Your task to perform on an android device: show emergency info Image 0: 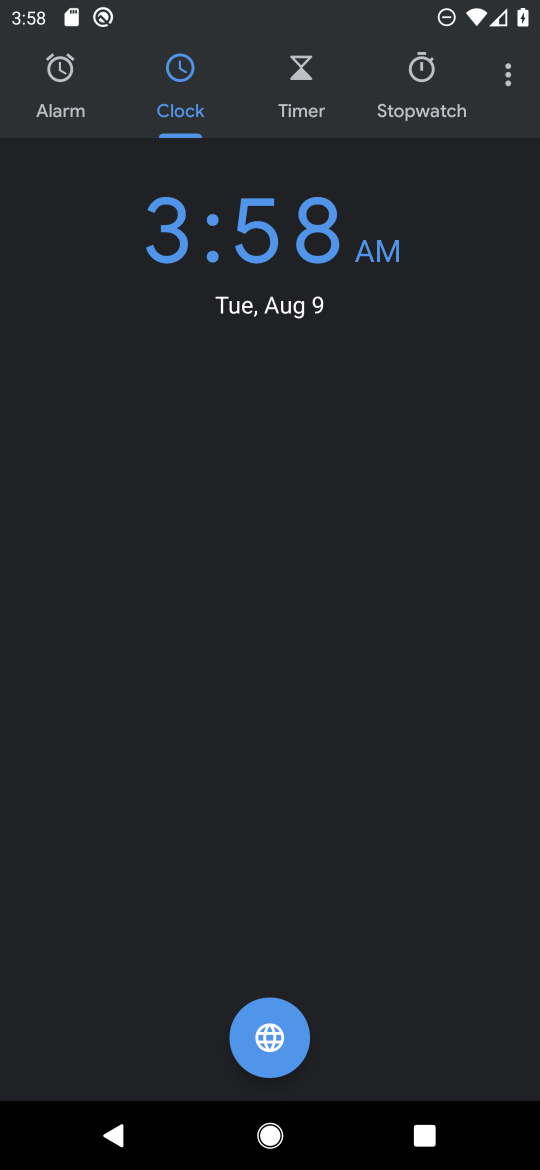
Step 0: press back button
Your task to perform on an android device: show emergency info Image 1: 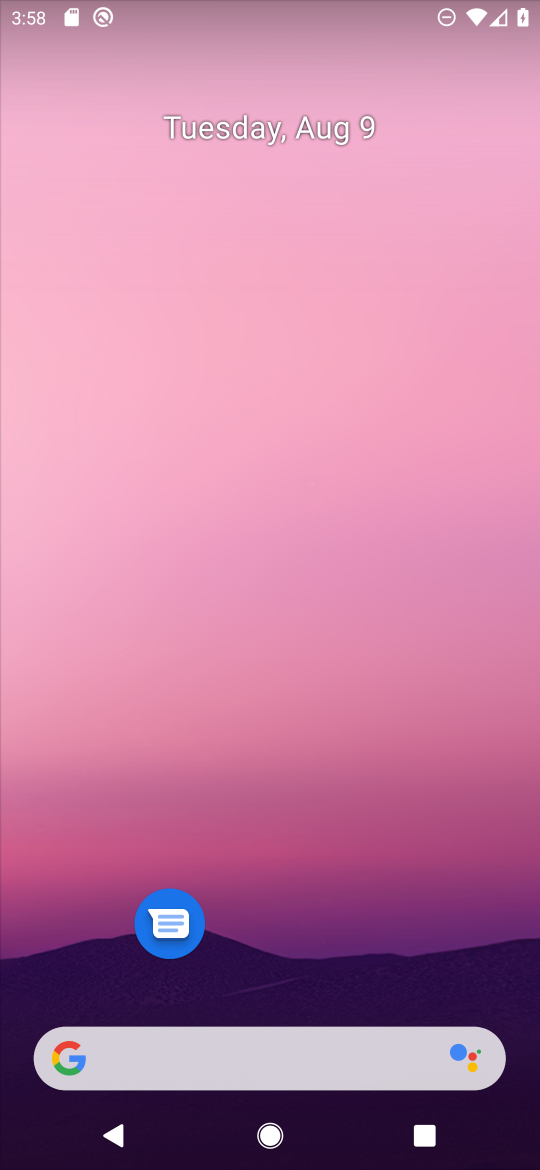
Step 1: drag from (307, 1005) to (448, 65)
Your task to perform on an android device: show emergency info Image 2: 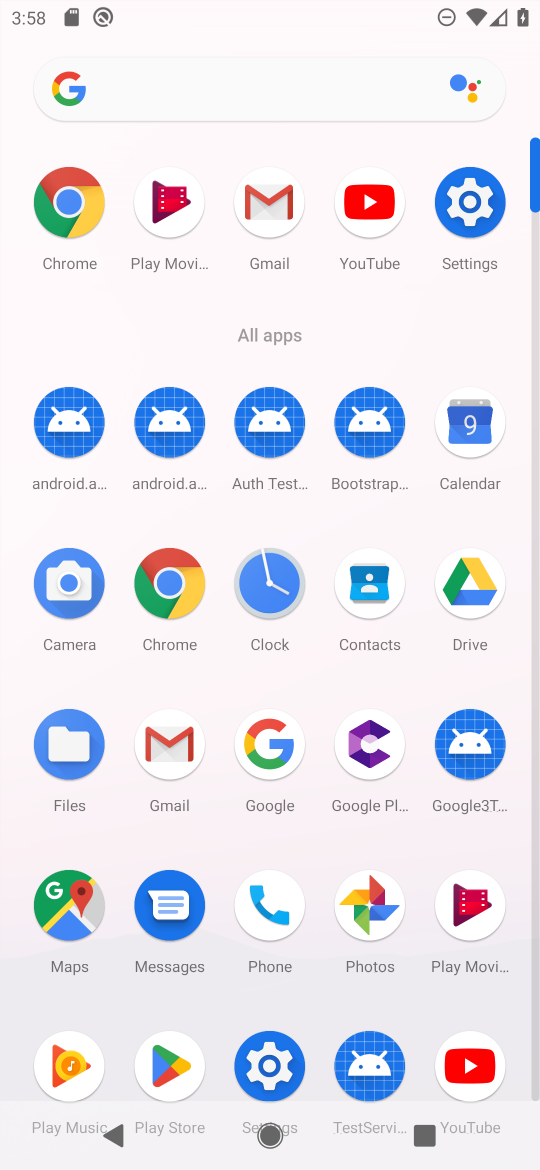
Step 2: click (471, 196)
Your task to perform on an android device: show emergency info Image 3: 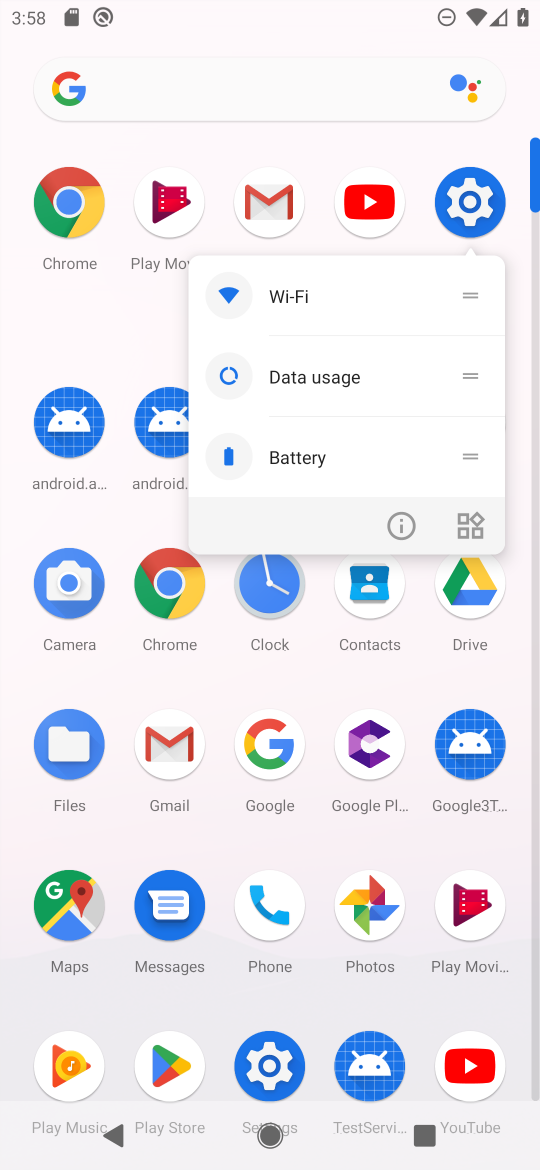
Step 3: click (473, 205)
Your task to perform on an android device: show emergency info Image 4: 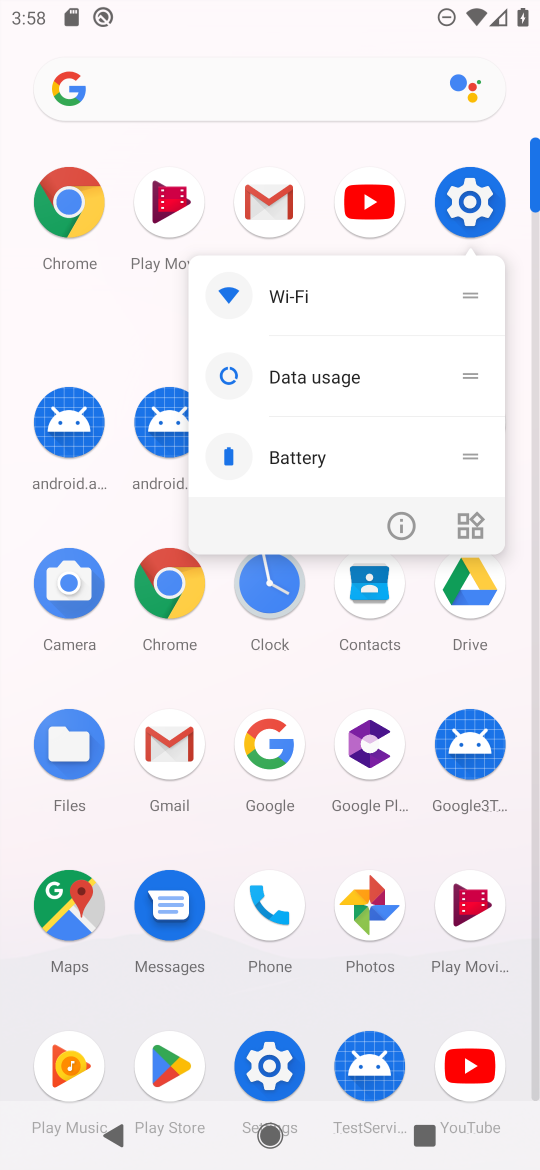
Step 4: click (473, 205)
Your task to perform on an android device: show emergency info Image 5: 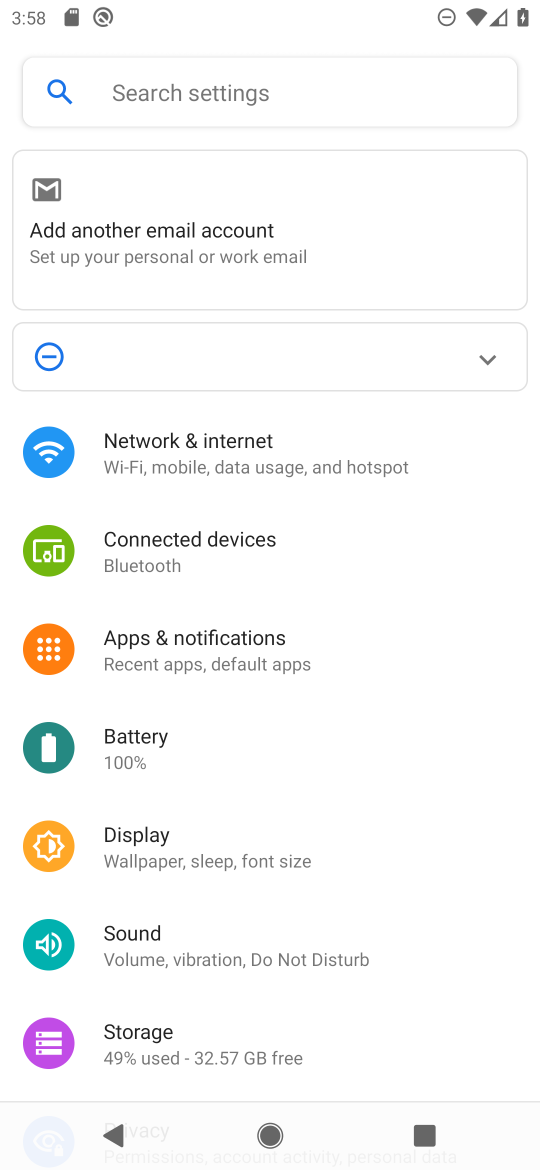
Step 5: drag from (246, 806) to (362, 76)
Your task to perform on an android device: show emergency info Image 6: 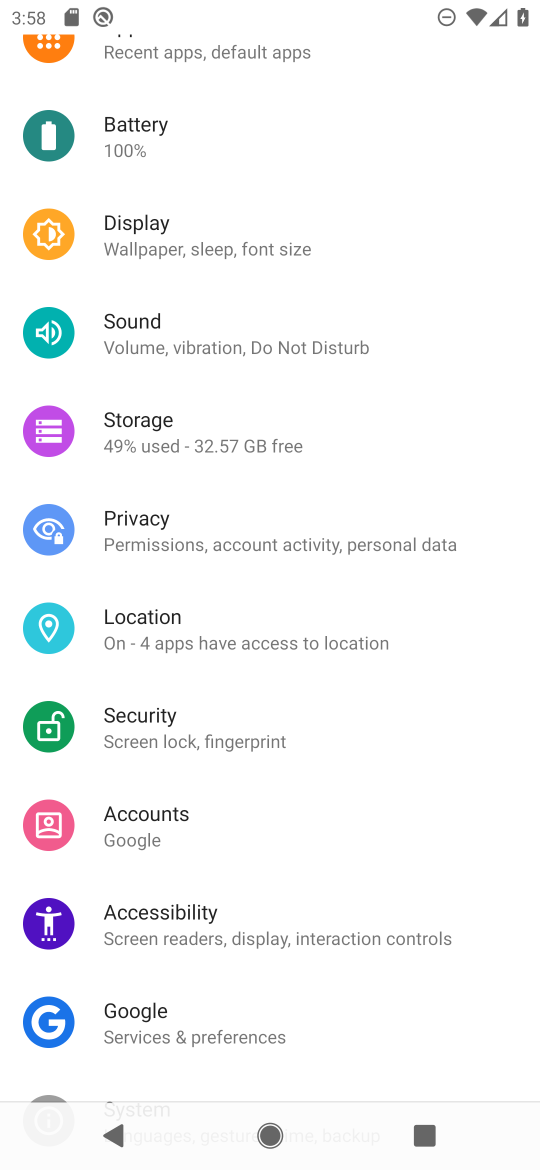
Step 6: drag from (229, 935) to (367, 120)
Your task to perform on an android device: show emergency info Image 7: 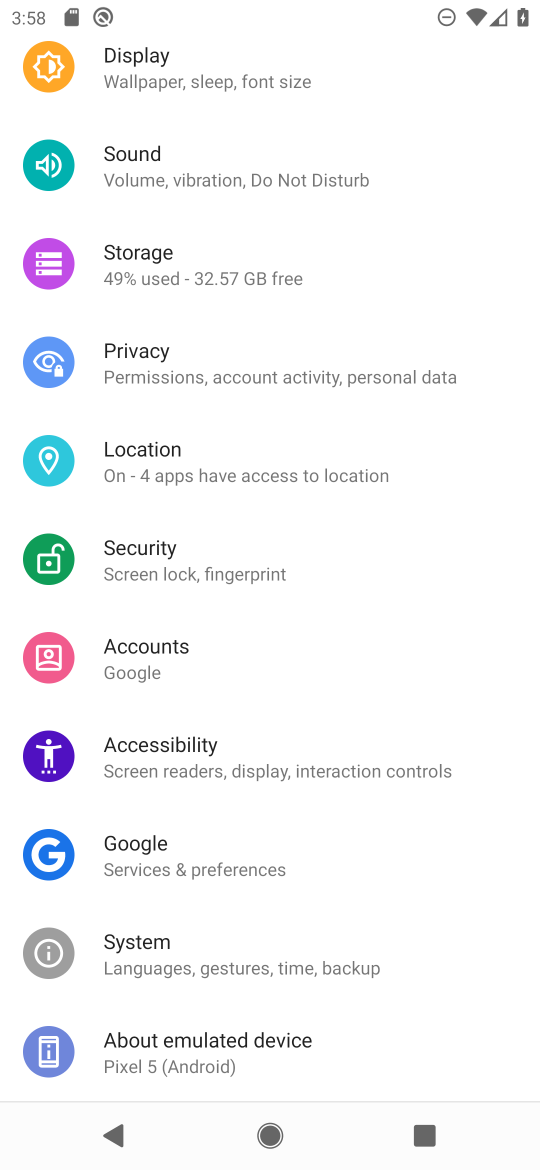
Step 7: drag from (206, 1050) to (434, 142)
Your task to perform on an android device: show emergency info Image 8: 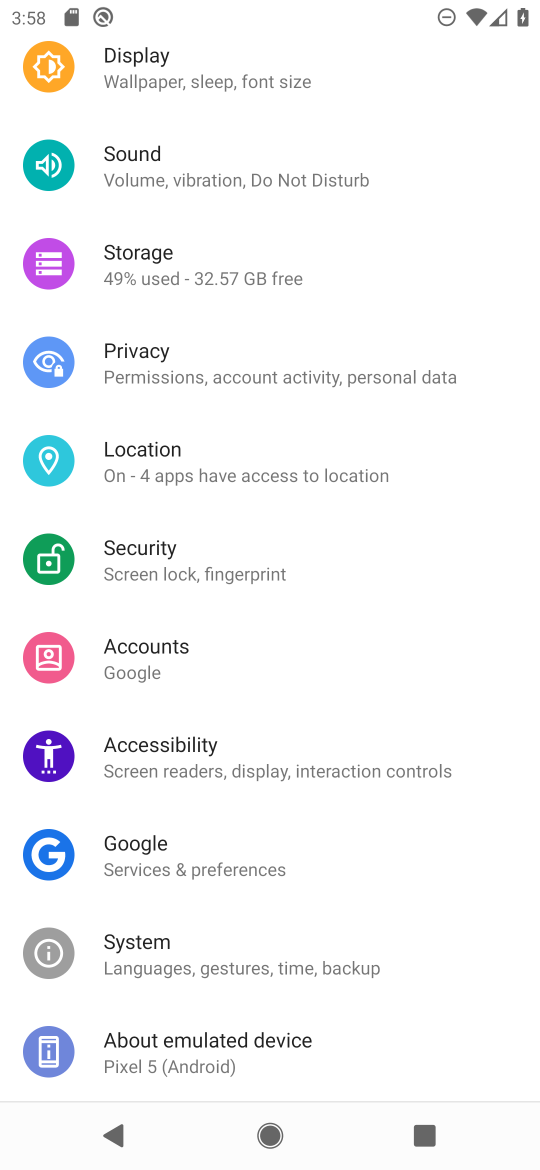
Step 8: click (191, 1049)
Your task to perform on an android device: show emergency info Image 9: 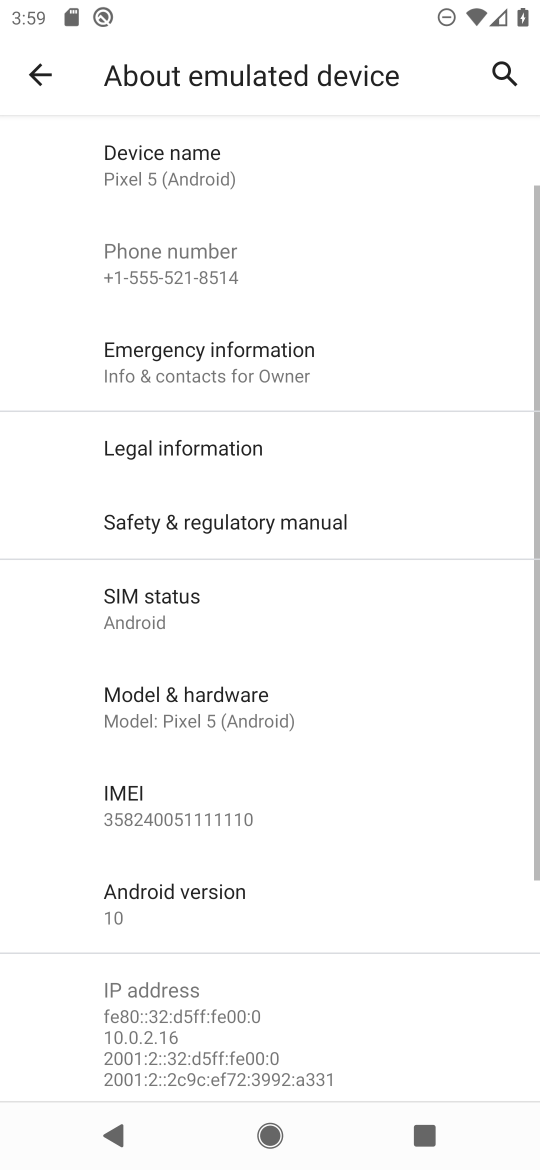
Step 9: click (238, 369)
Your task to perform on an android device: show emergency info Image 10: 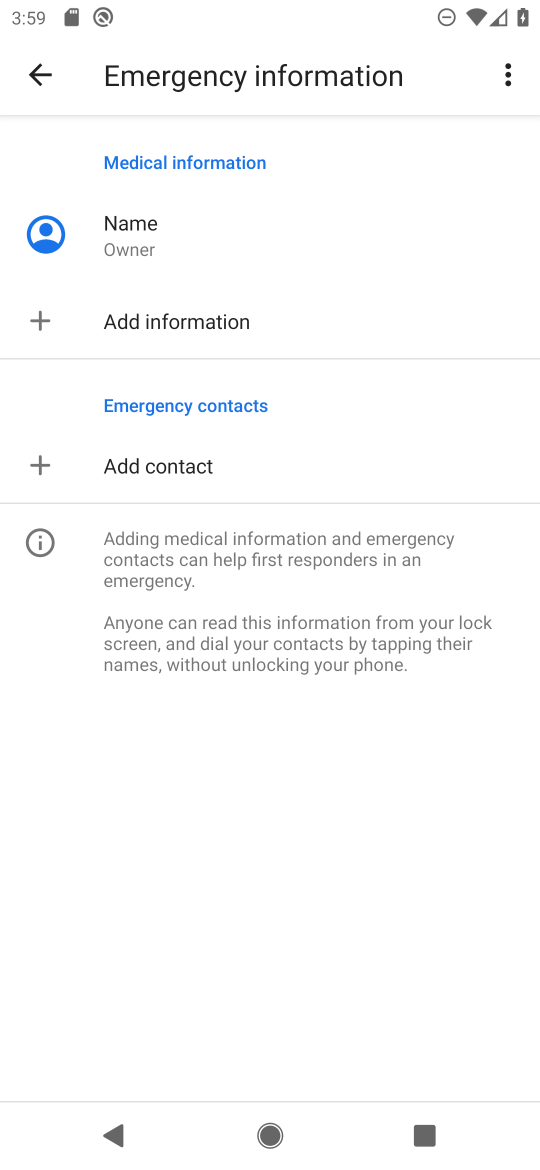
Step 10: task complete